Your task to perform on an android device: open a new tab in the chrome app Image 0: 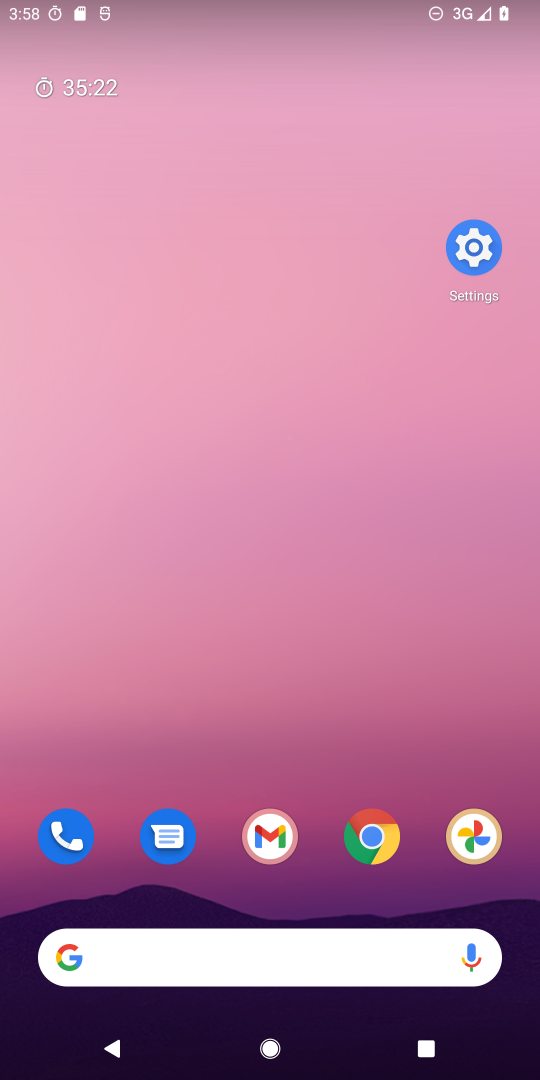
Step 0: click (382, 829)
Your task to perform on an android device: open a new tab in the chrome app Image 1: 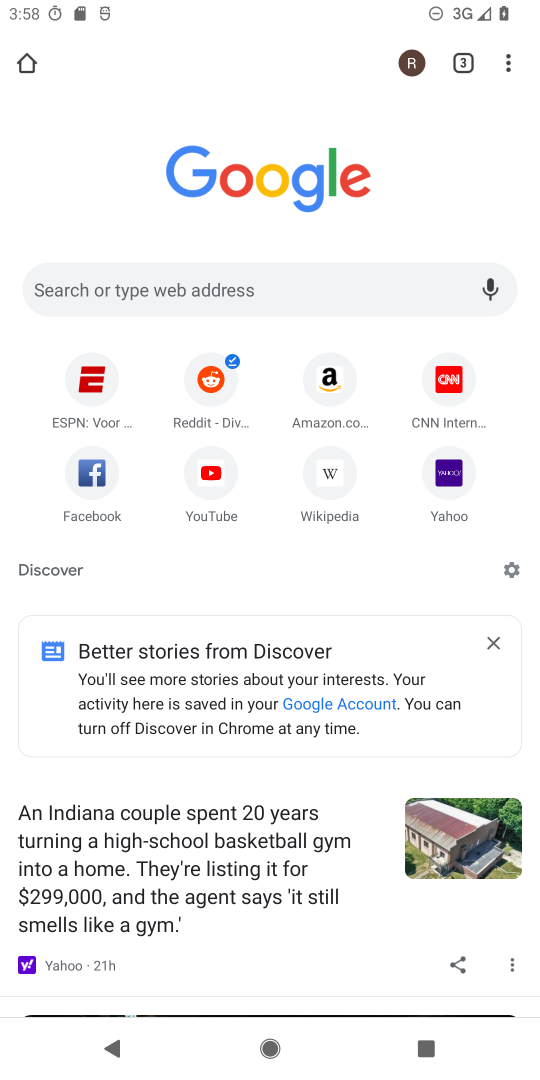
Step 1: click (504, 60)
Your task to perform on an android device: open a new tab in the chrome app Image 2: 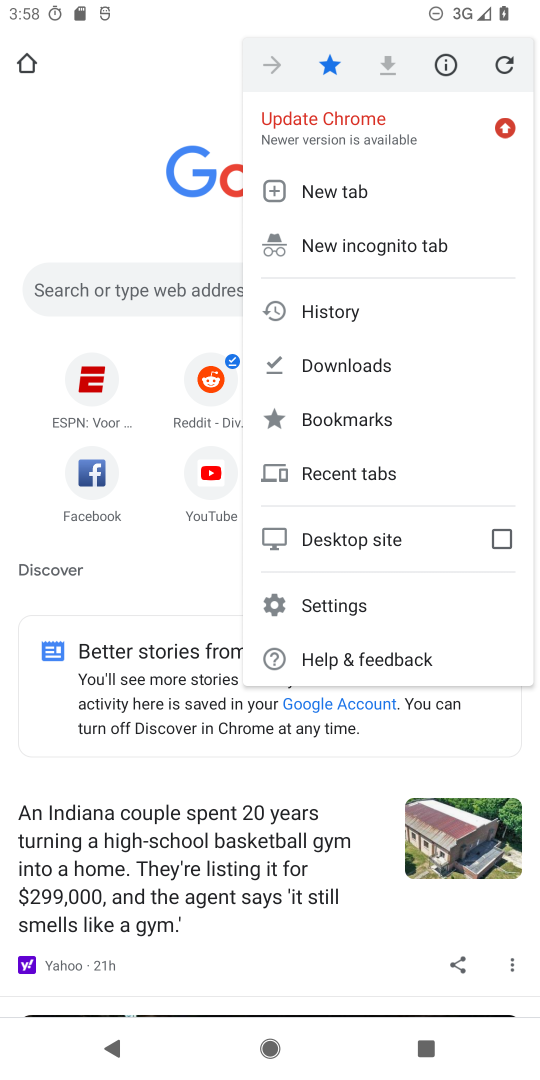
Step 2: click (501, 58)
Your task to perform on an android device: open a new tab in the chrome app Image 3: 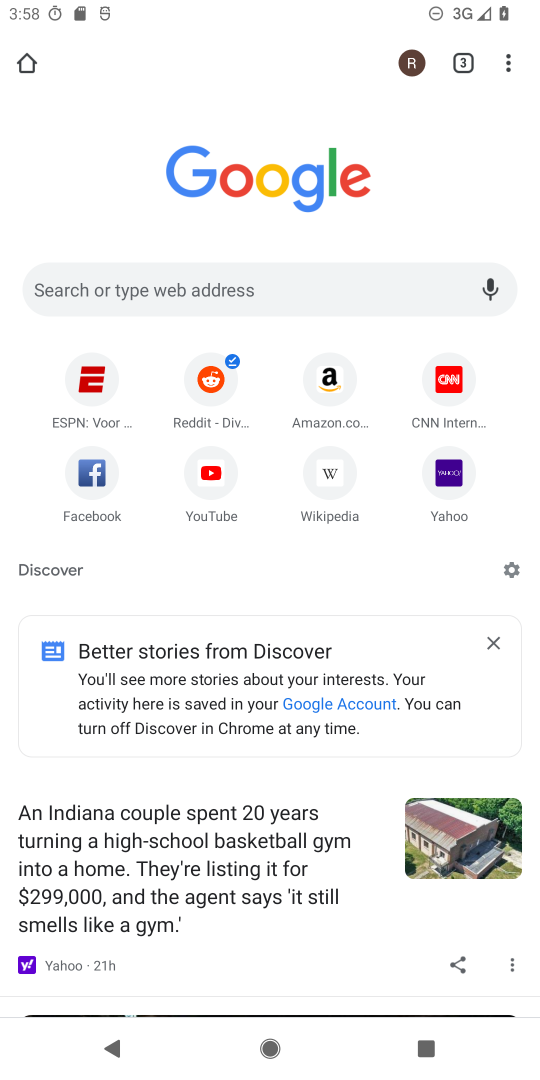
Step 3: click (365, 193)
Your task to perform on an android device: open a new tab in the chrome app Image 4: 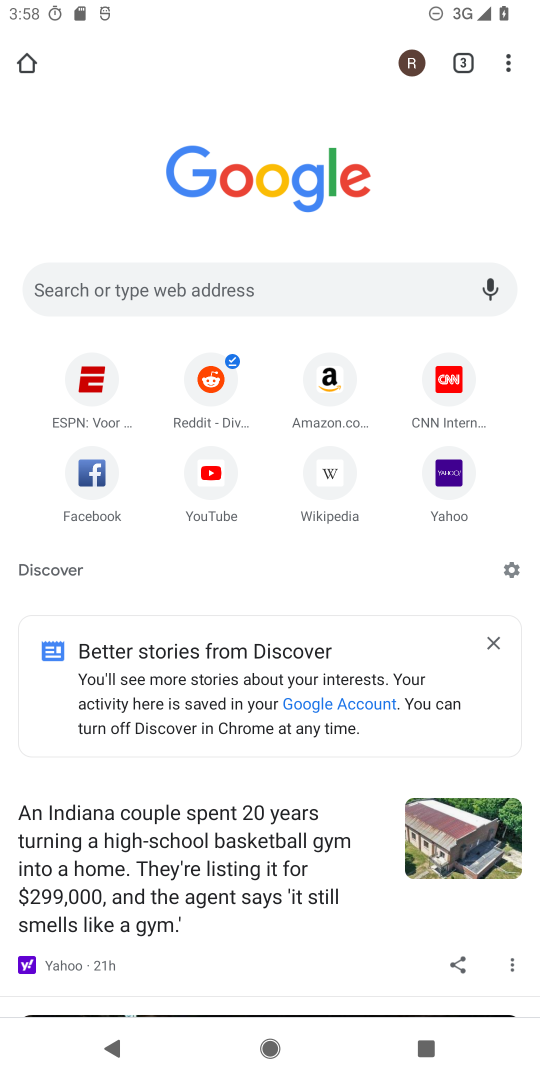
Step 4: click (505, 64)
Your task to perform on an android device: open a new tab in the chrome app Image 5: 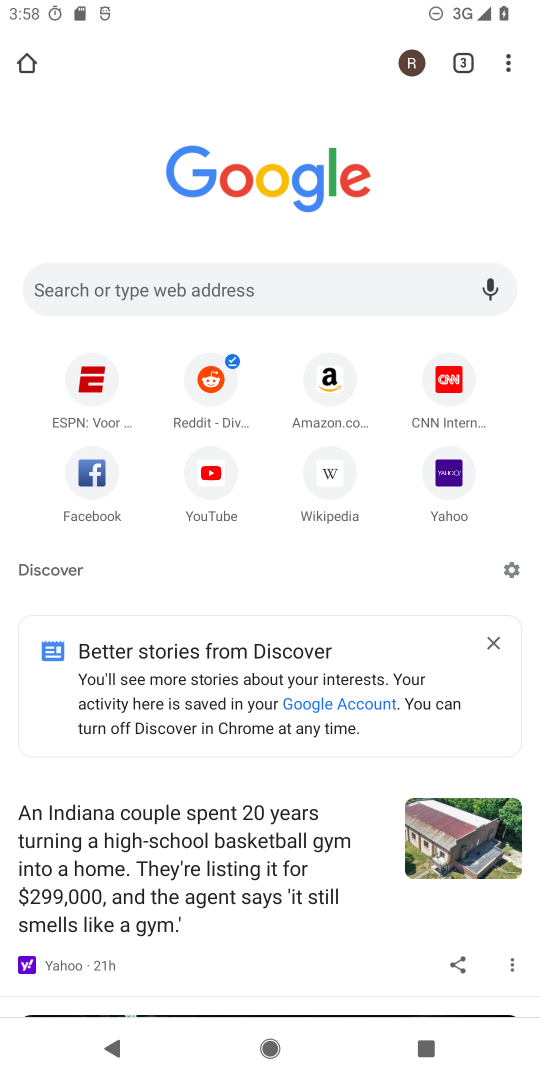
Step 5: click (505, 64)
Your task to perform on an android device: open a new tab in the chrome app Image 6: 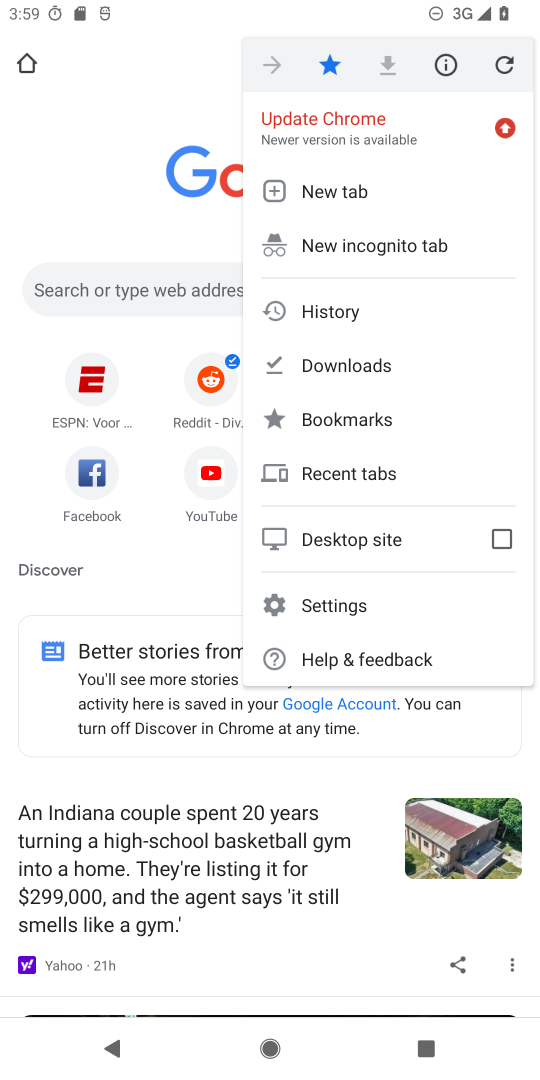
Step 6: click (325, 198)
Your task to perform on an android device: open a new tab in the chrome app Image 7: 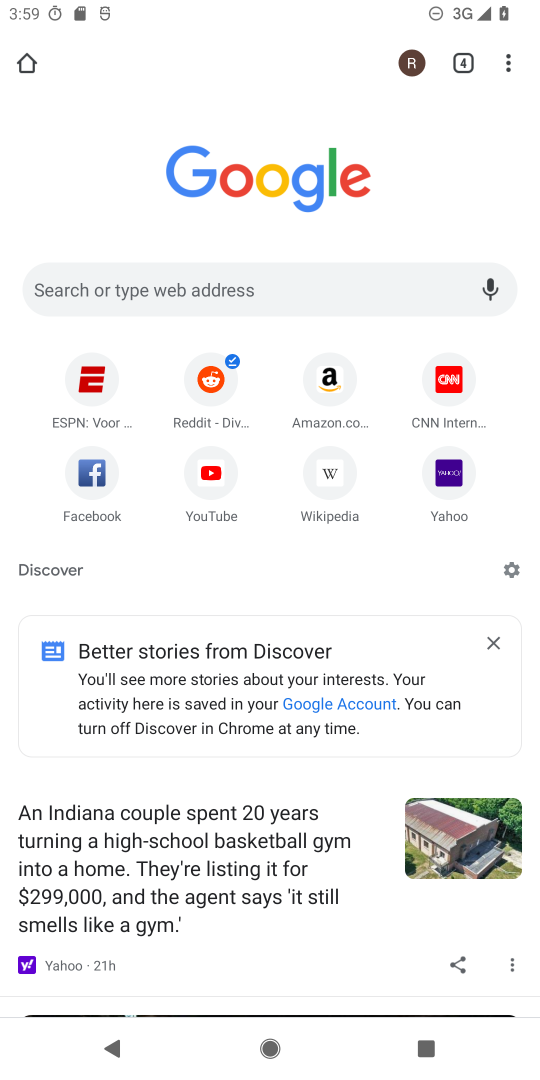
Step 7: task complete